Your task to perform on an android device: Go to Yahoo.com Image 0: 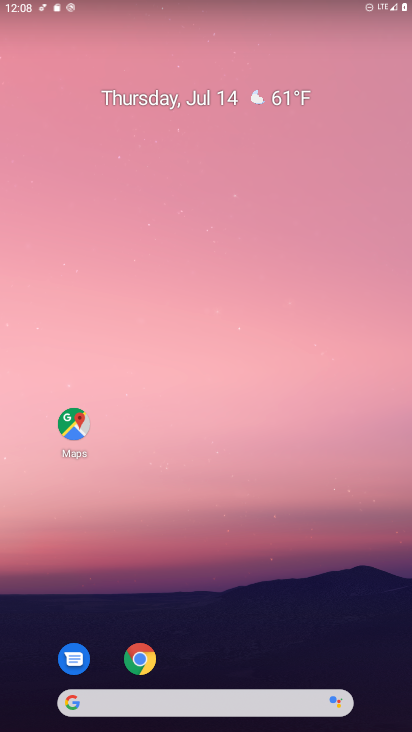
Step 0: click (139, 660)
Your task to perform on an android device: Go to Yahoo.com Image 1: 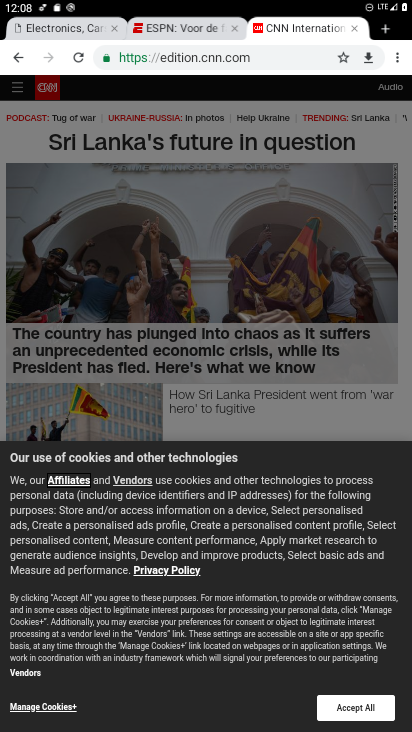
Step 1: click (278, 55)
Your task to perform on an android device: Go to Yahoo.com Image 2: 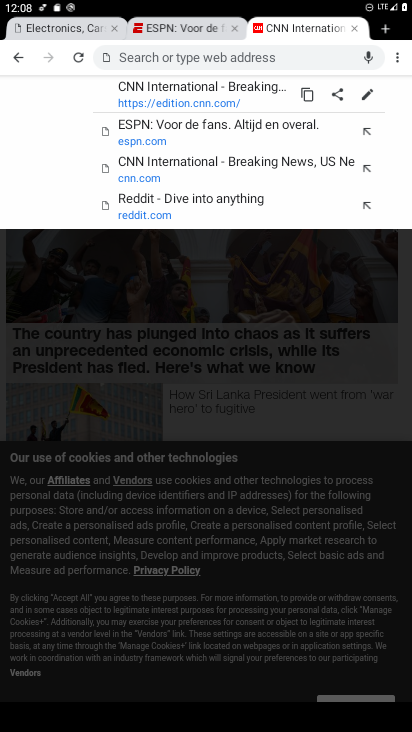
Step 2: type "yahoo.com"
Your task to perform on an android device: Go to Yahoo.com Image 3: 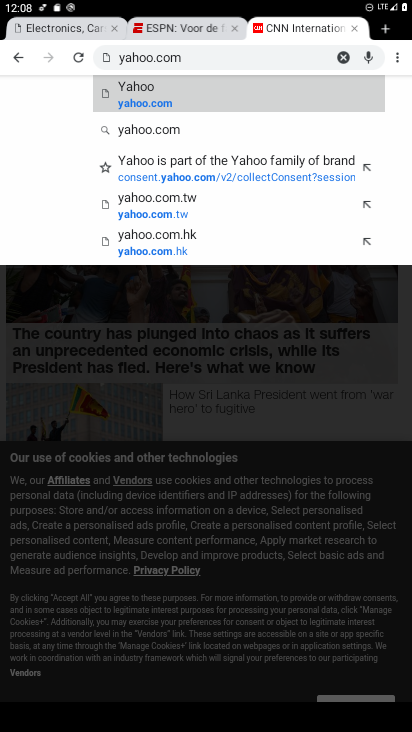
Step 3: click (132, 89)
Your task to perform on an android device: Go to Yahoo.com Image 4: 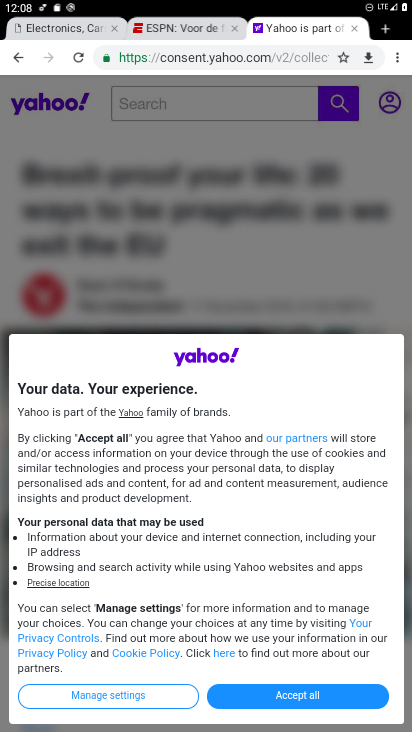
Step 4: click (295, 700)
Your task to perform on an android device: Go to Yahoo.com Image 5: 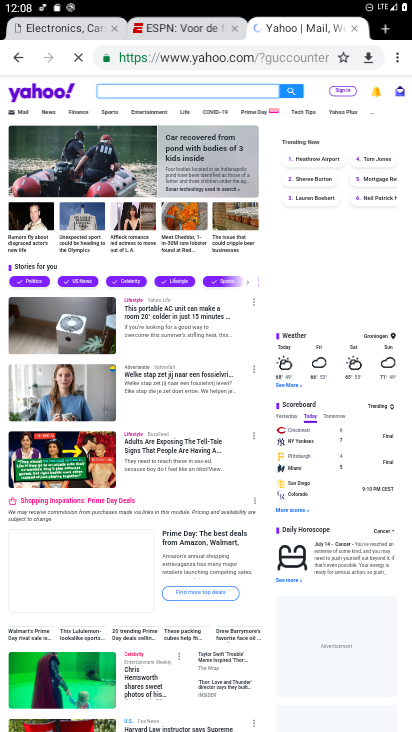
Step 5: task complete